Your task to perform on an android device: move an email to a new category in the gmail app Image 0: 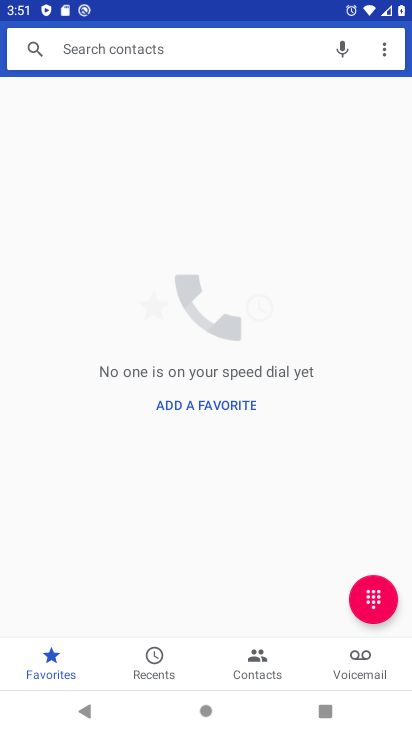
Step 0: press home button
Your task to perform on an android device: move an email to a new category in the gmail app Image 1: 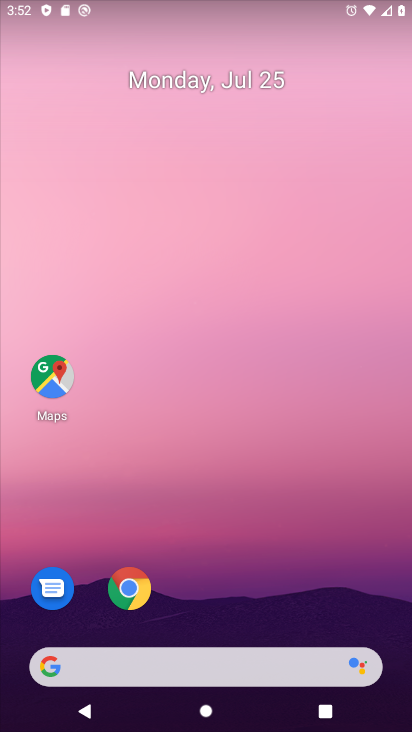
Step 1: drag from (227, 710) to (256, 117)
Your task to perform on an android device: move an email to a new category in the gmail app Image 2: 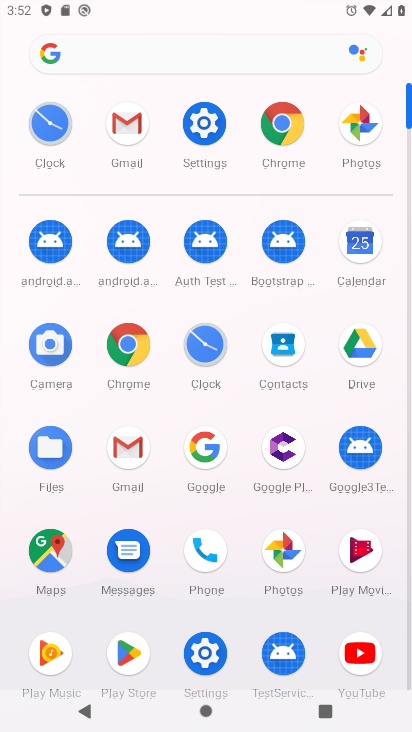
Step 2: click (132, 447)
Your task to perform on an android device: move an email to a new category in the gmail app Image 3: 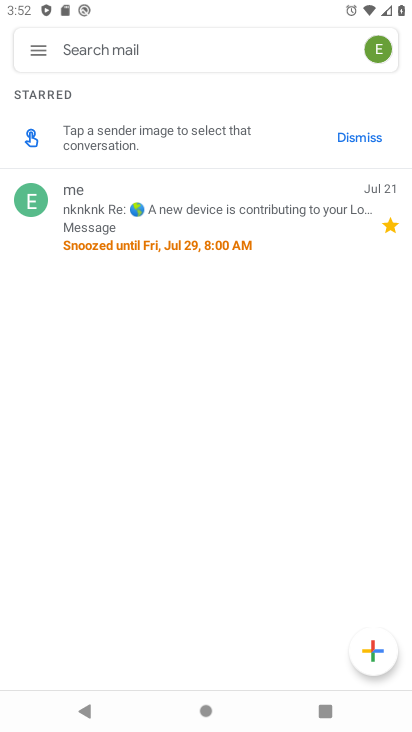
Step 3: click (113, 227)
Your task to perform on an android device: move an email to a new category in the gmail app Image 4: 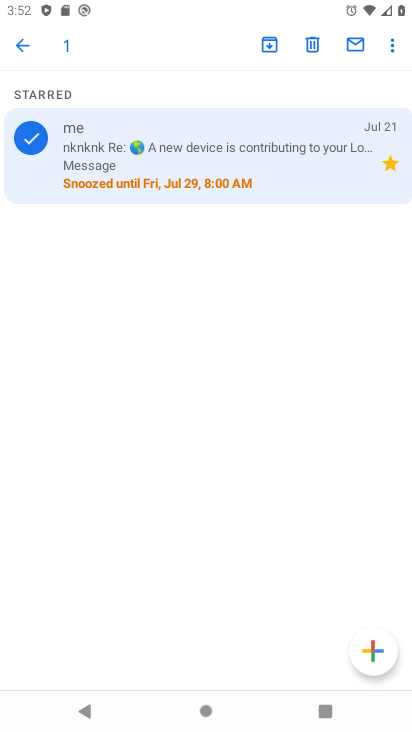
Step 4: click (395, 46)
Your task to perform on an android device: move an email to a new category in the gmail app Image 5: 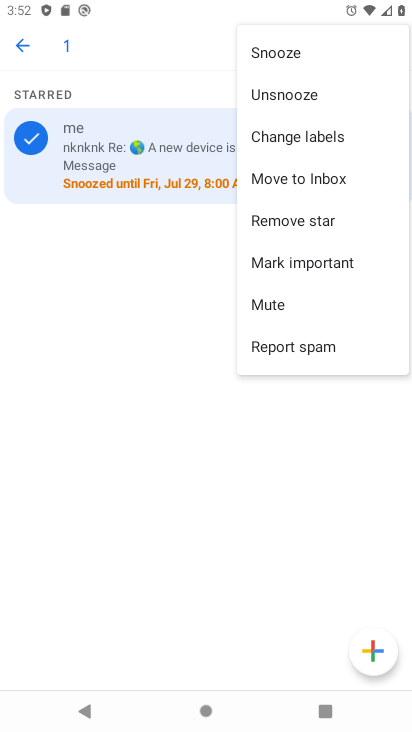
Step 5: click (288, 177)
Your task to perform on an android device: move an email to a new category in the gmail app Image 6: 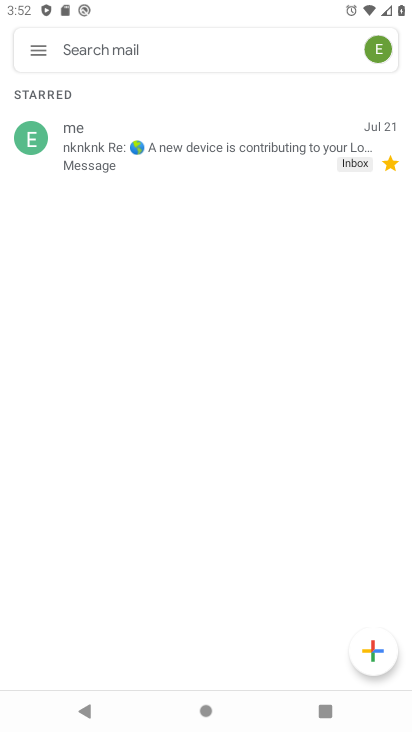
Step 6: task complete